Your task to perform on an android device: change the upload size in google photos Image 0: 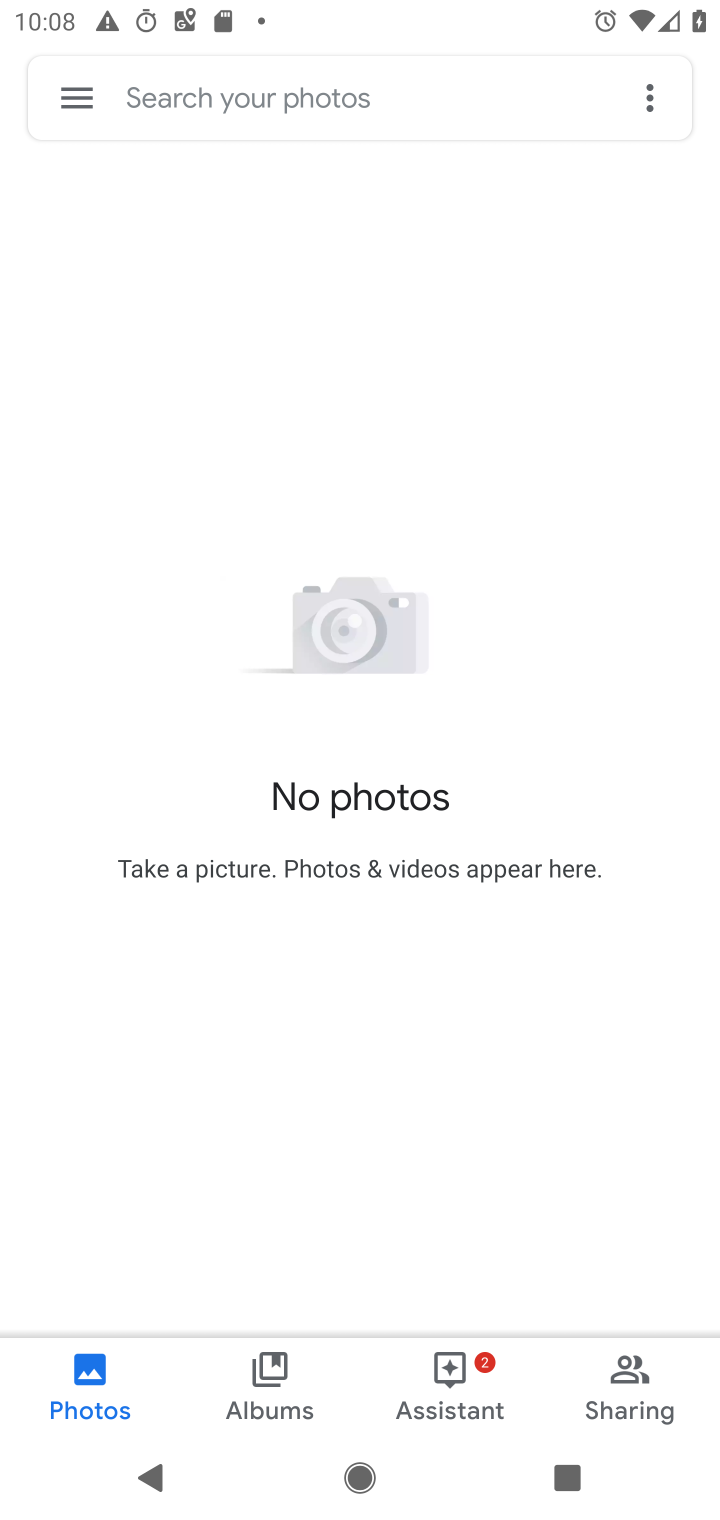
Step 0: press home button
Your task to perform on an android device: change the upload size in google photos Image 1: 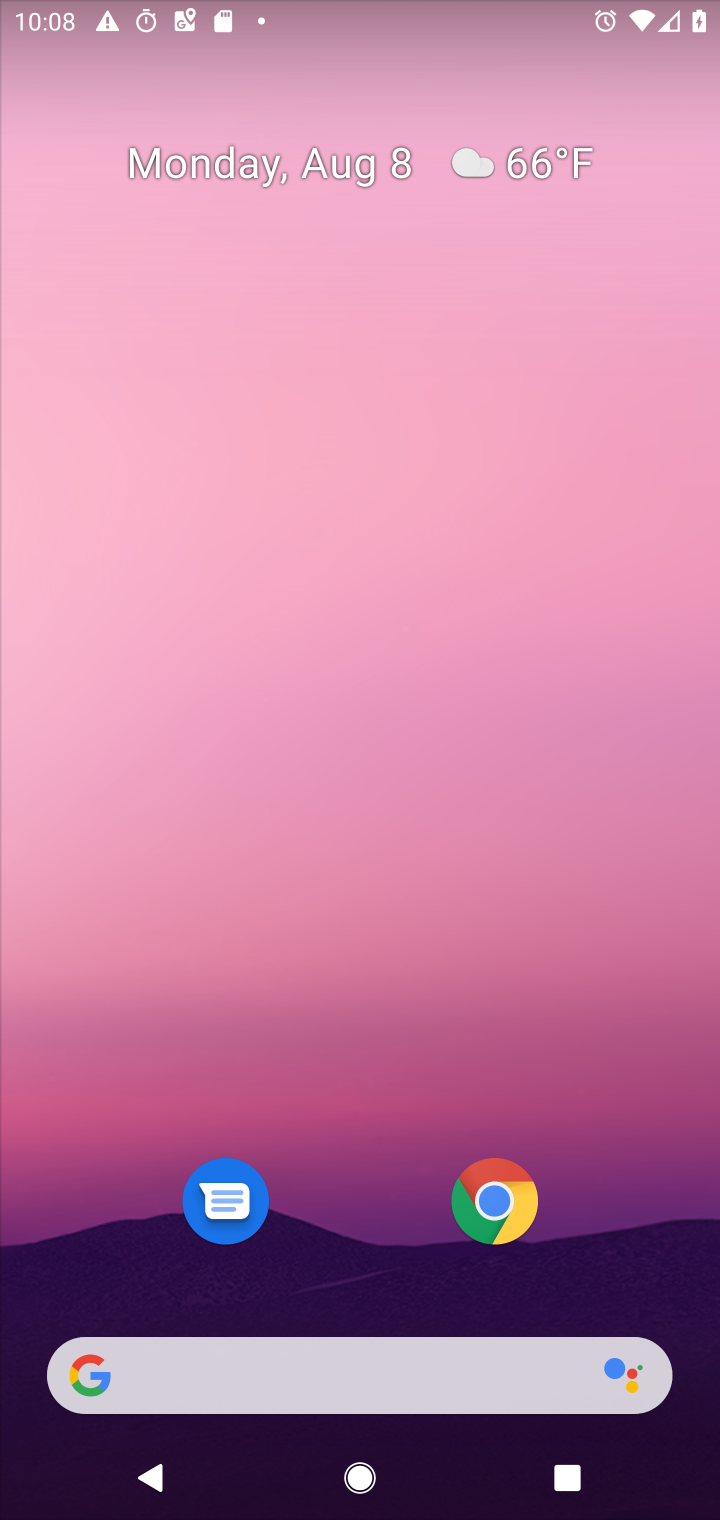
Step 1: drag from (588, 1275) to (540, 257)
Your task to perform on an android device: change the upload size in google photos Image 2: 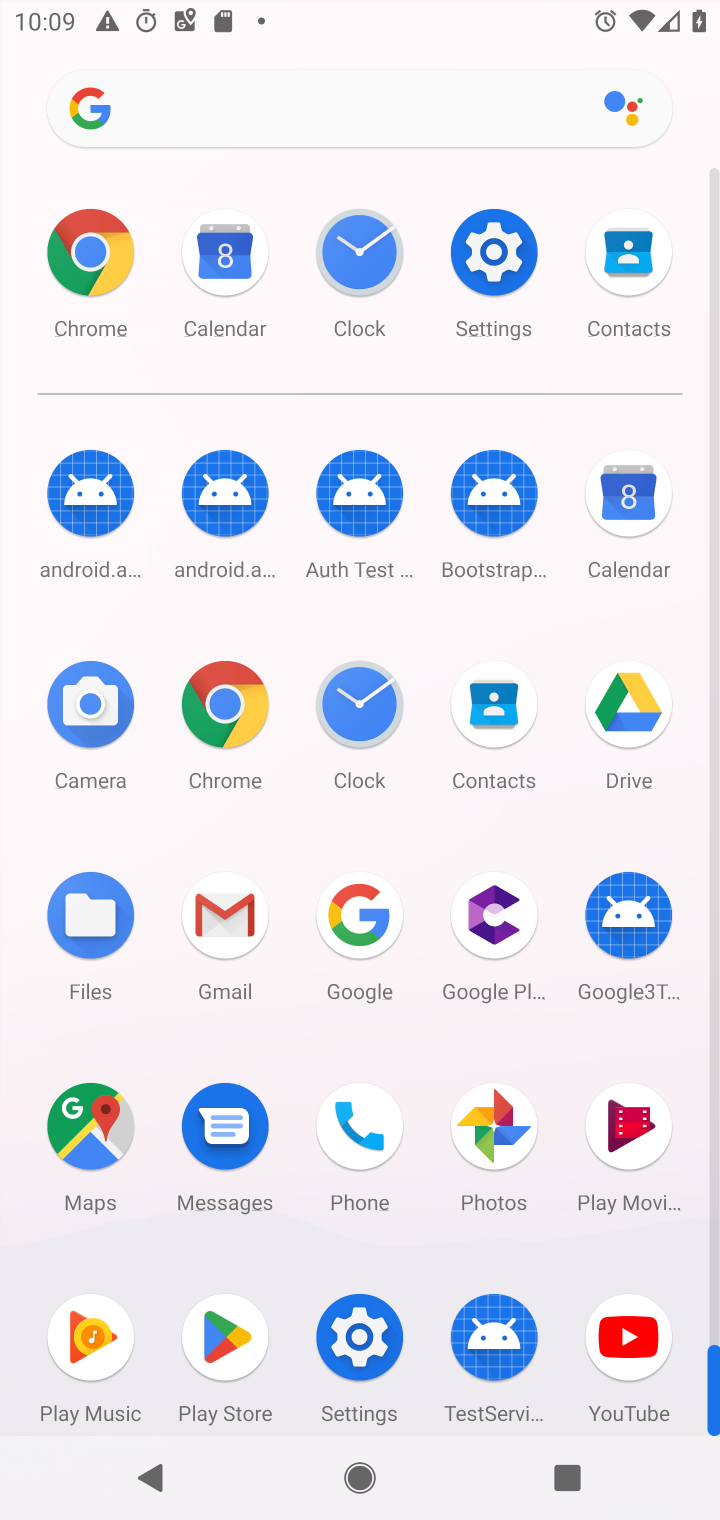
Step 2: click (484, 1125)
Your task to perform on an android device: change the upload size in google photos Image 3: 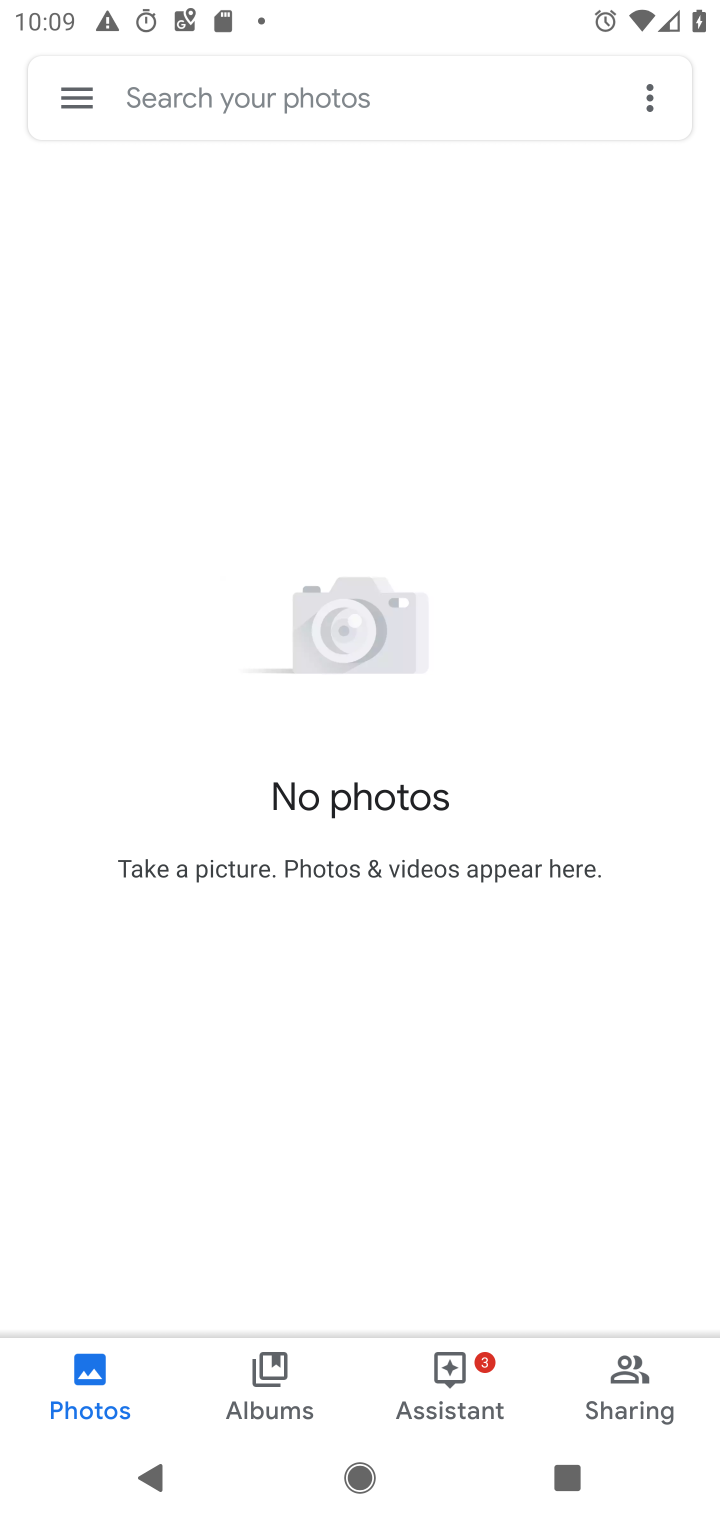
Step 3: click (62, 86)
Your task to perform on an android device: change the upload size in google photos Image 4: 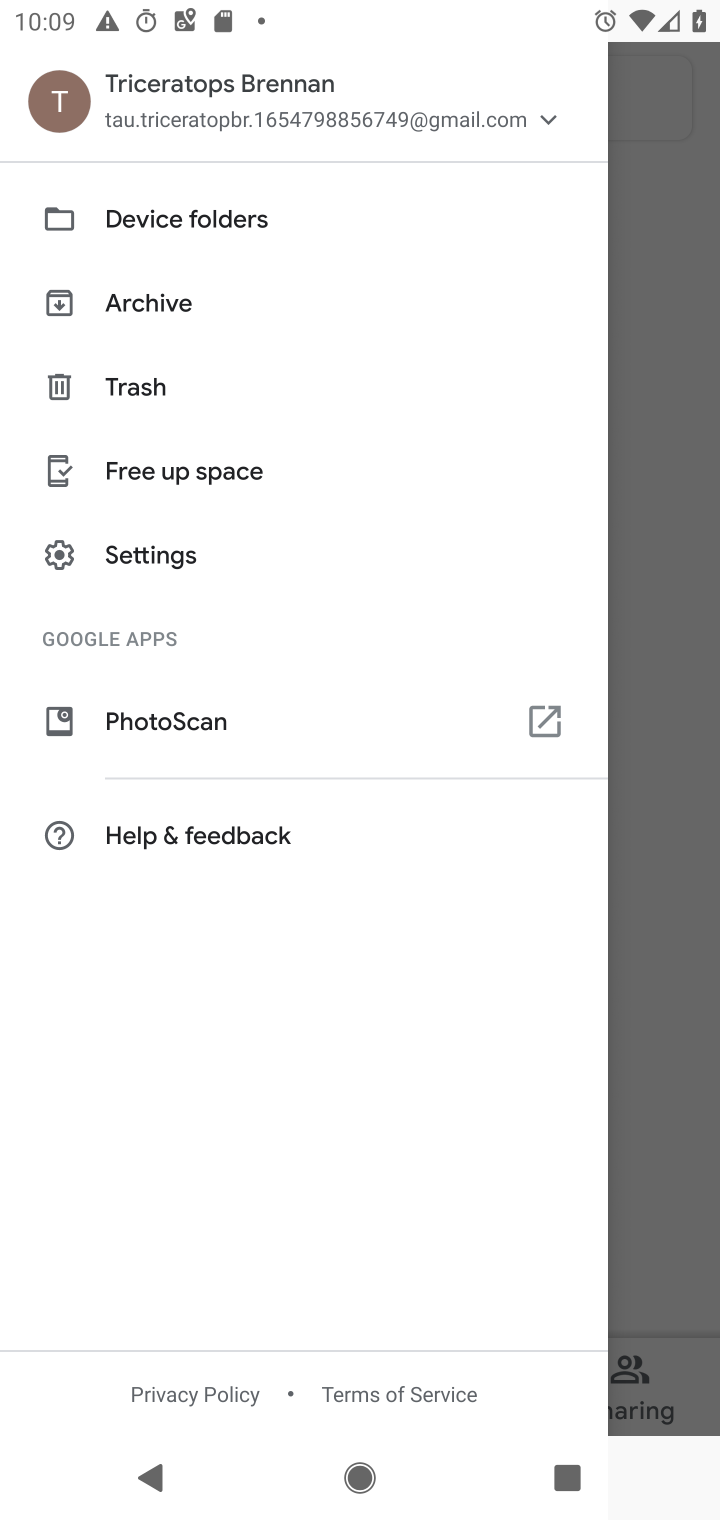
Step 4: click (180, 556)
Your task to perform on an android device: change the upload size in google photos Image 5: 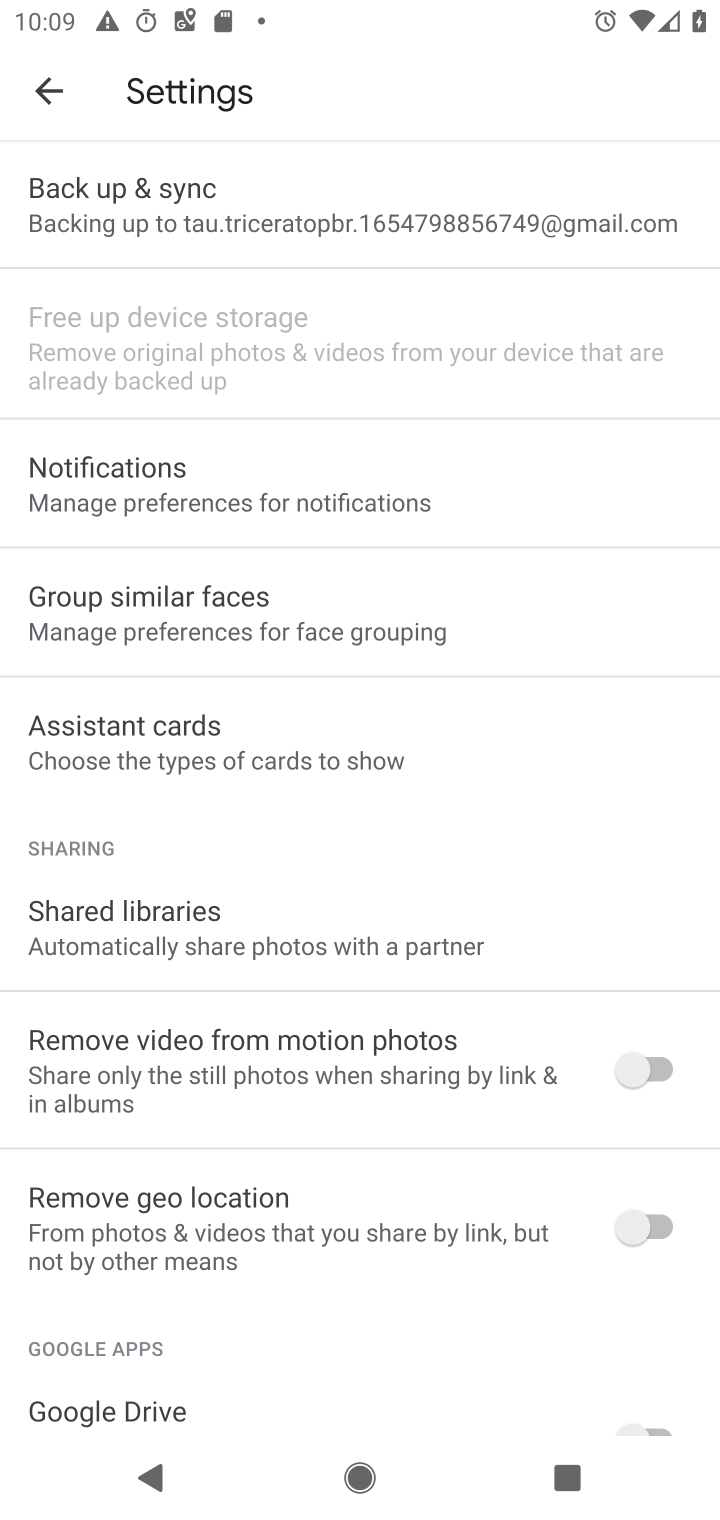
Step 5: click (277, 215)
Your task to perform on an android device: change the upload size in google photos Image 6: 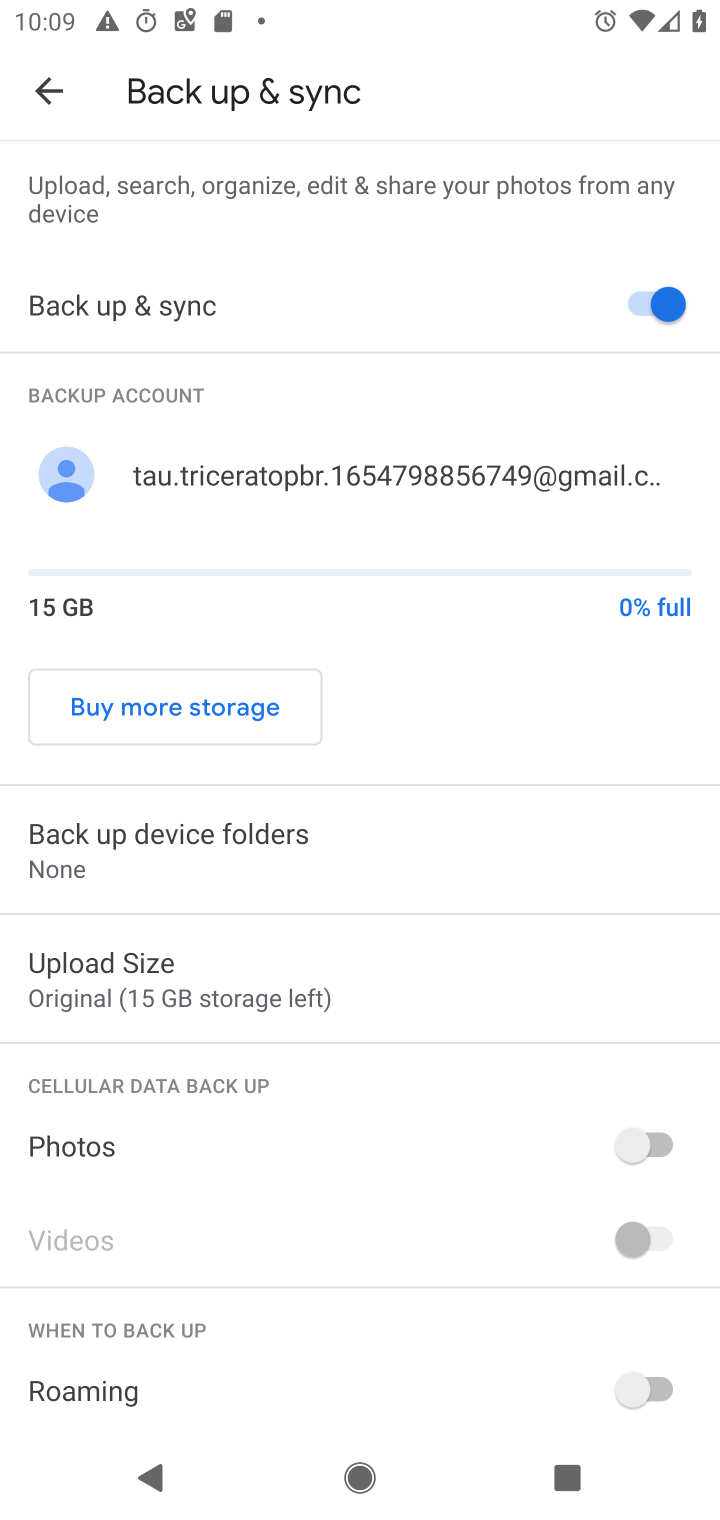
Step 6: click (384, 981)
Your task to perform on an android device: change the upload size in google photos Image 7: 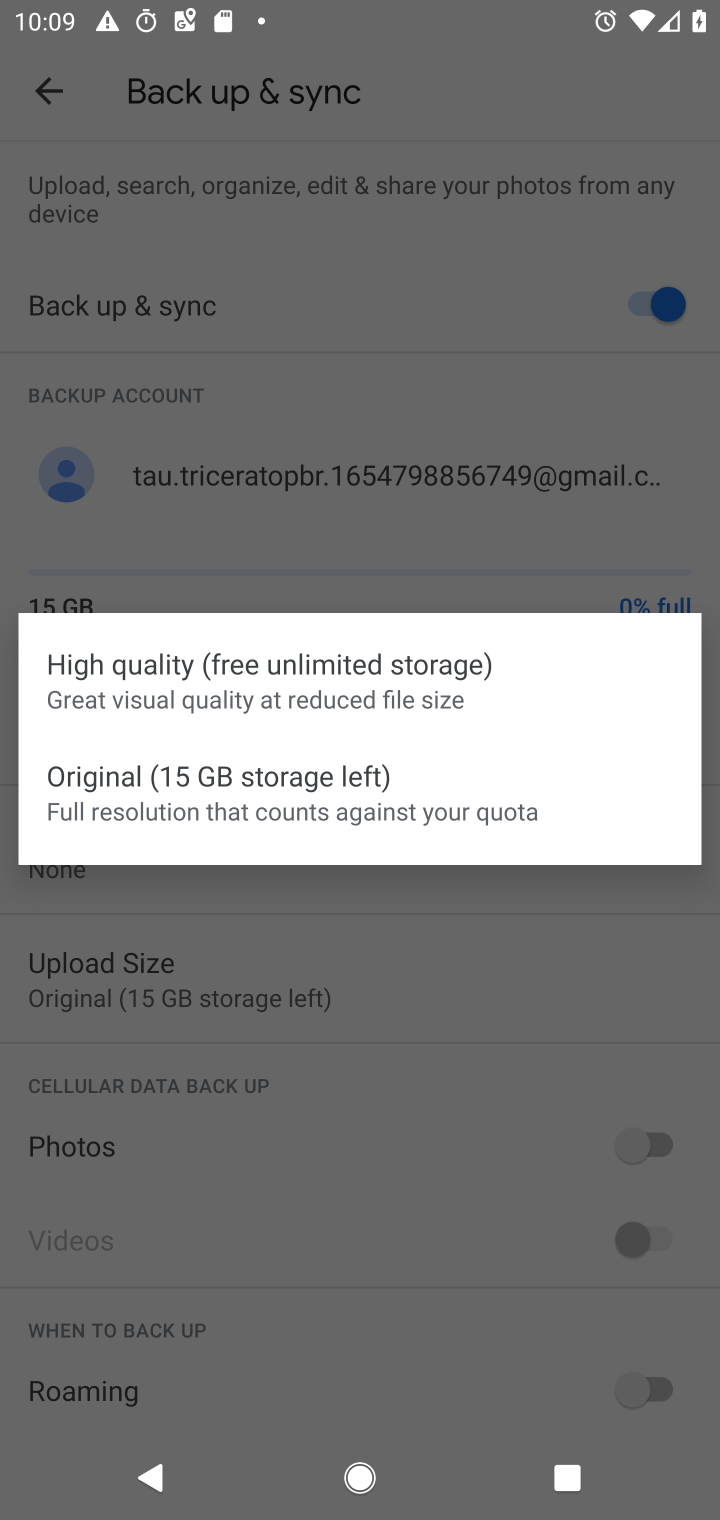
Step 7: click (341, 690)
Your task to perform on an android device: change the upload size in google photos Image 8: 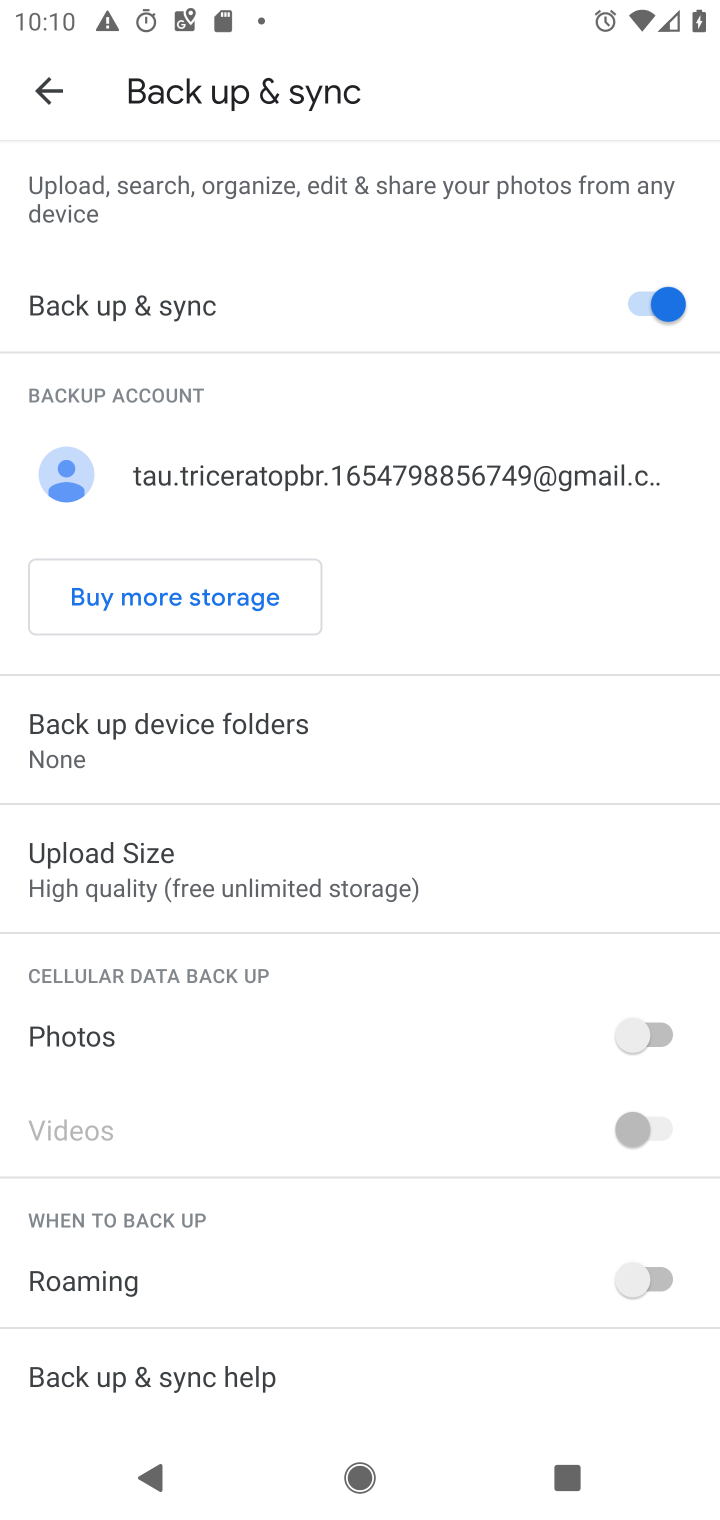
Step 8: task complete